Your task to perform on an android device: Add "alienware aurora" to the cart on newegg, then select checkout. Image 0: 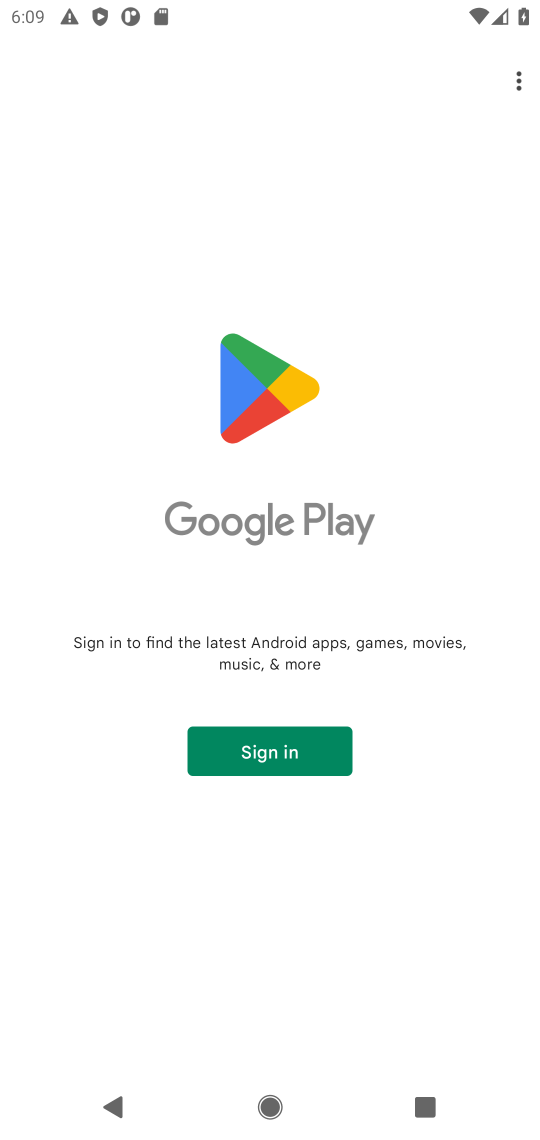
Step 0: press home button
Your task to perform on an android device: Add "alienware aurora" to the cart on newegg, then select checkout. Image 1: 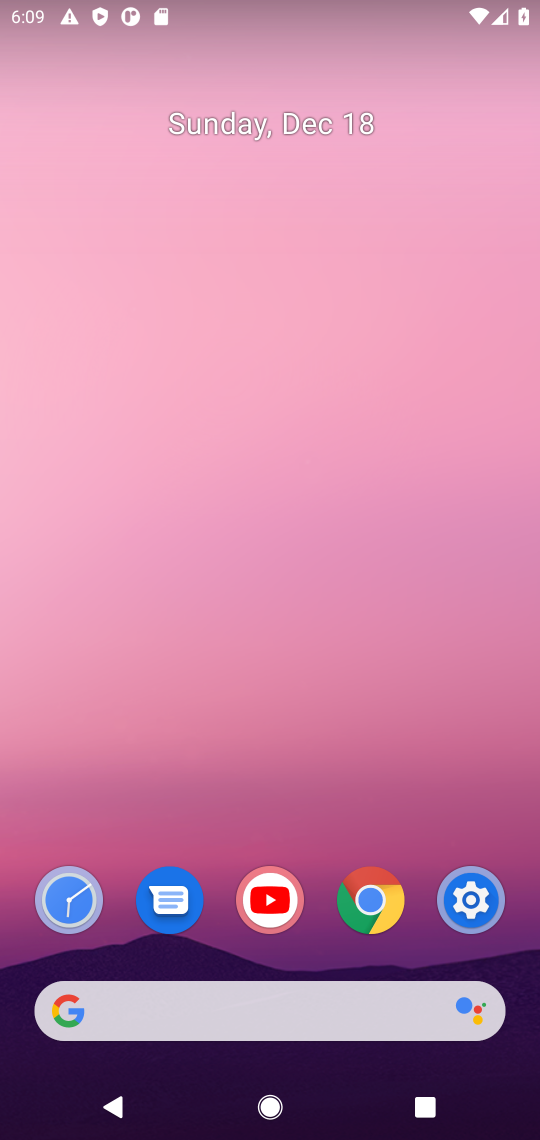
Step 1: click (361, 912)
Your task to perform on an android device: Add "alienware aurora" to the cart on newegg, then select checkout. Image 2: 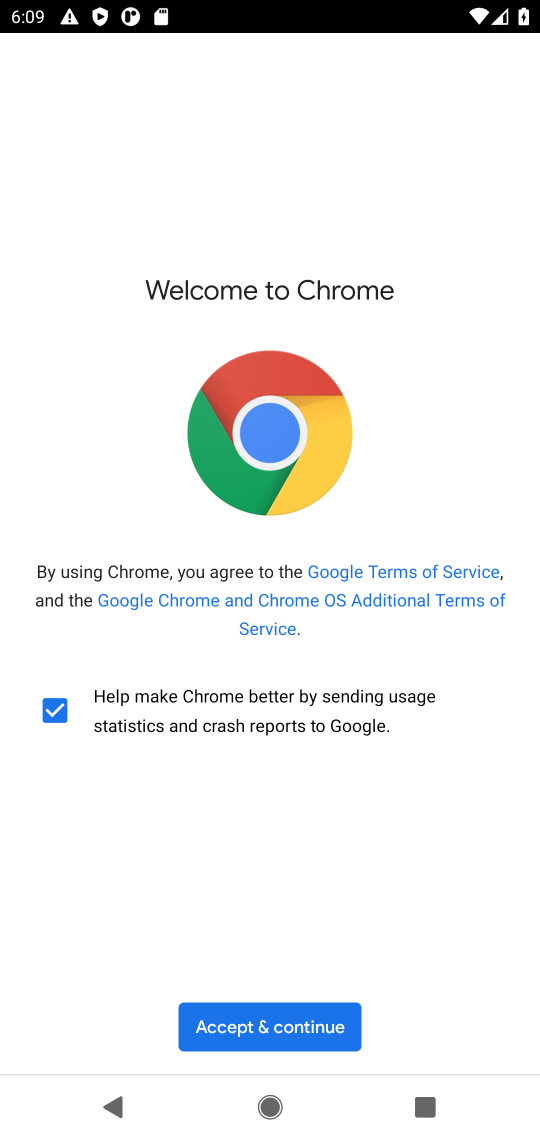
Step 2: click (240, 1014)
Your task to perform on an android device: Add "alienware aurora" to the cart on newegg, then select checkout. Image 3: 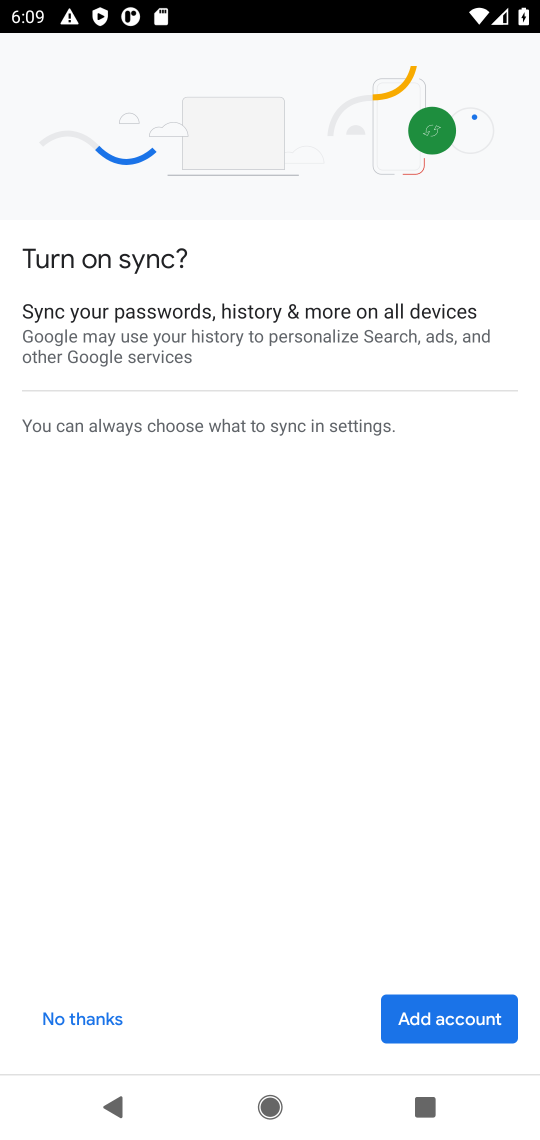
Step 3: click (32, 1009)
Your task to perform on an android device: Add "alienware aurora" to the cart on newegg, then select checkout. Image 4: 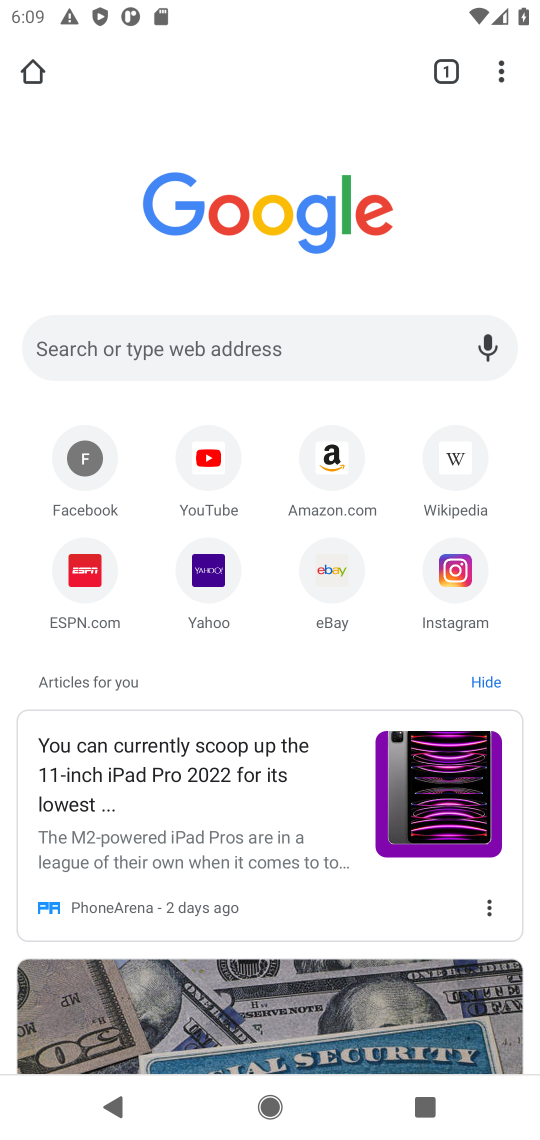
Step 4: click (329, 349)
Your task to perform on an android device: Add "alienware aurora" to the cart on newegg, then select checkout. Image 5: 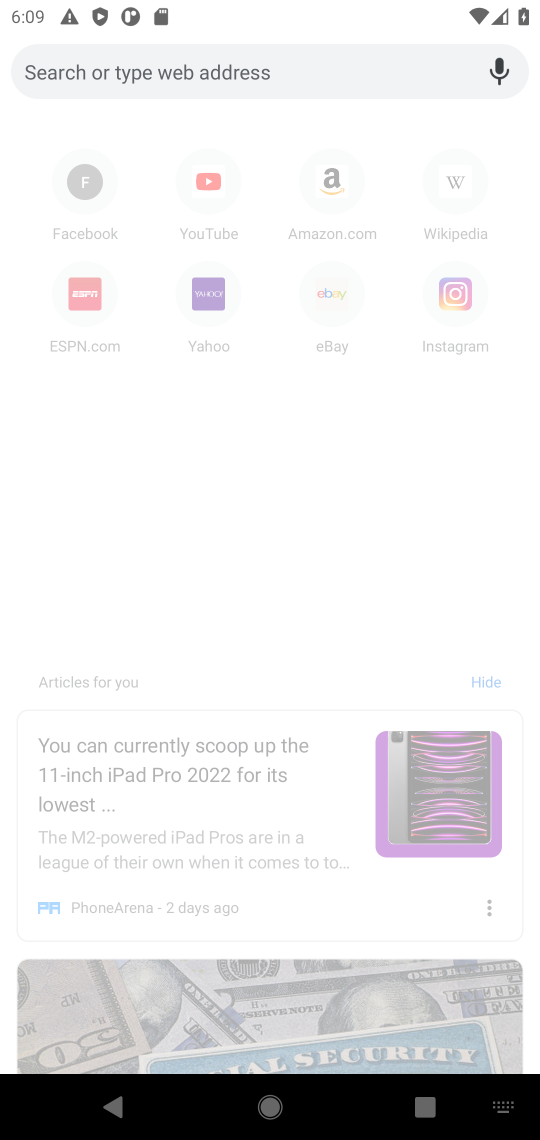
Step 5: type "newegg"
Your task to perform on an android device: Add "alienware aurora" to the cart on newegg, then select checkout. Image 6: 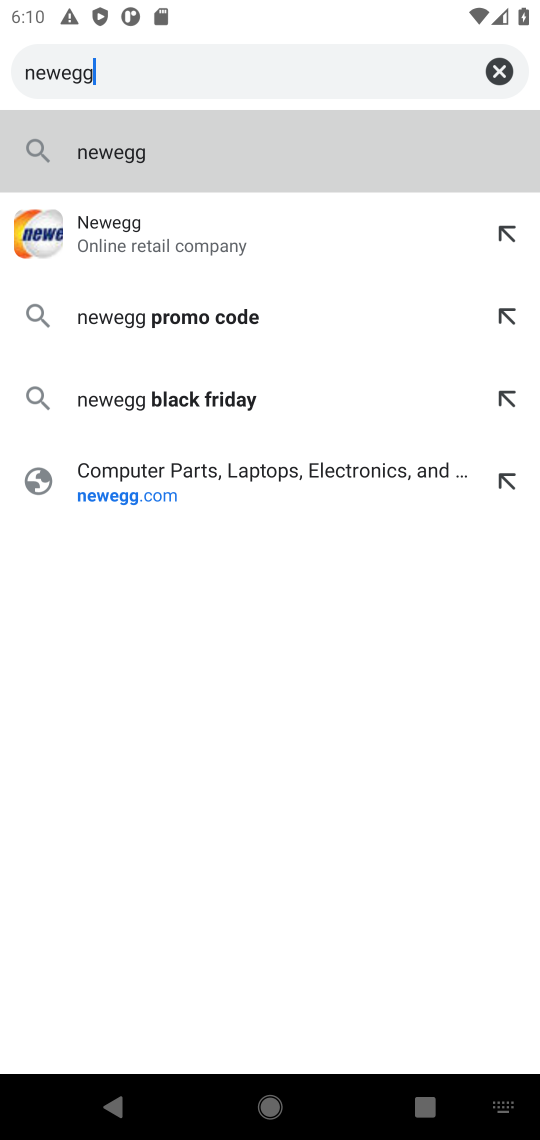
Step 6: click (106, 233)
Your task to perform on an android device: Add "alienware aurora" to the cart on newegg, then select checkout. Image 7: 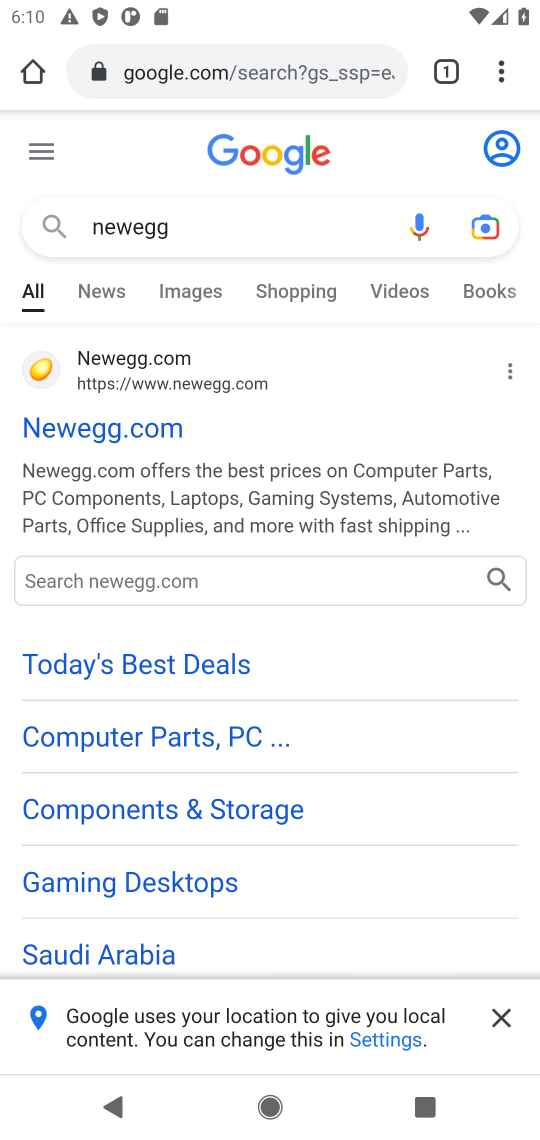
Step 7: click (96, 576)
Your task to perform on an android device: Add "alienware aurora" to the cart on newegg, then select checkout. Image 8: 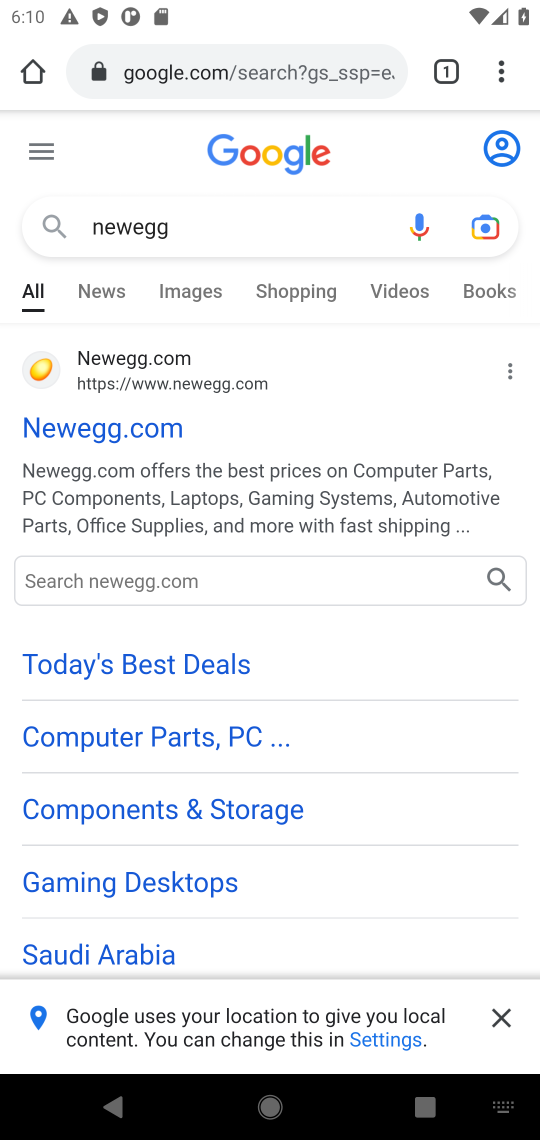
Step 8: type "alienware aurora"
Your task to perform on an android device: Add "alienware aurora" to the cart on newegg, then select checkout. Image 9: 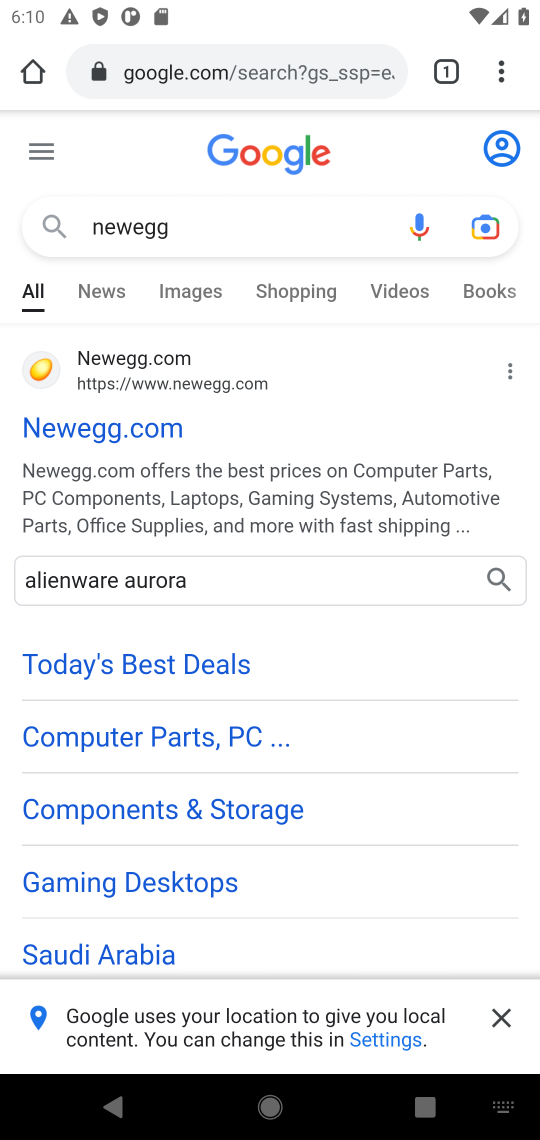
Step 9: click (481, 573)
Your task to perform on an android device: Add "alienware aurora" to the cart on newegg, then select checkout. Image 10: 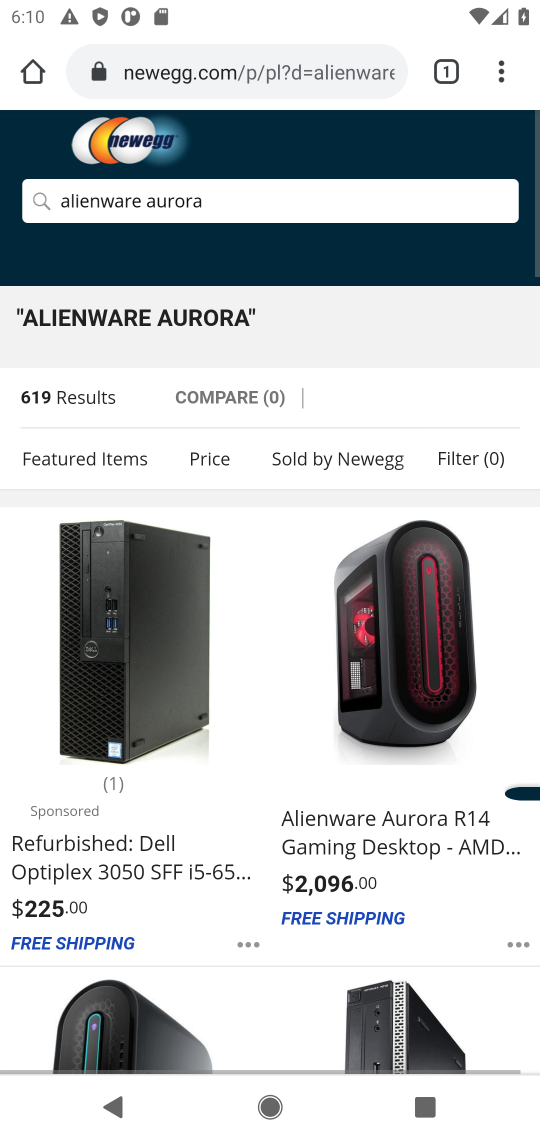
Step 10: click (501, 580)
Your task to perform on an android device: Add "alienware aurora" to the cart on newegg, then select checkout. Image 11: 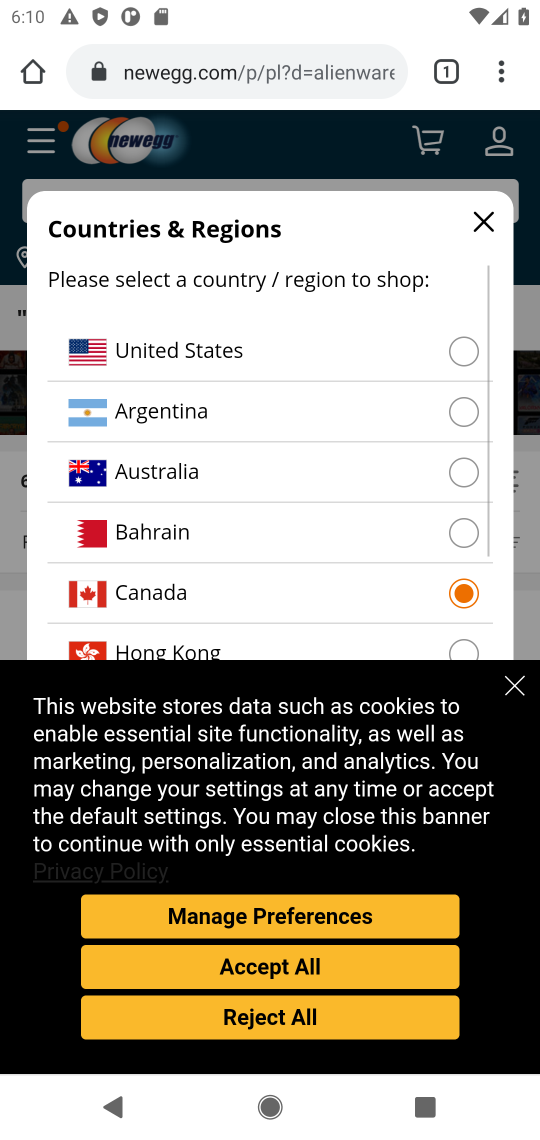
Step 11: click (294, 962)
Your task to perform on an android device: Add "alienware aurora" to the cart on newegg, then select checkout. Image 12: 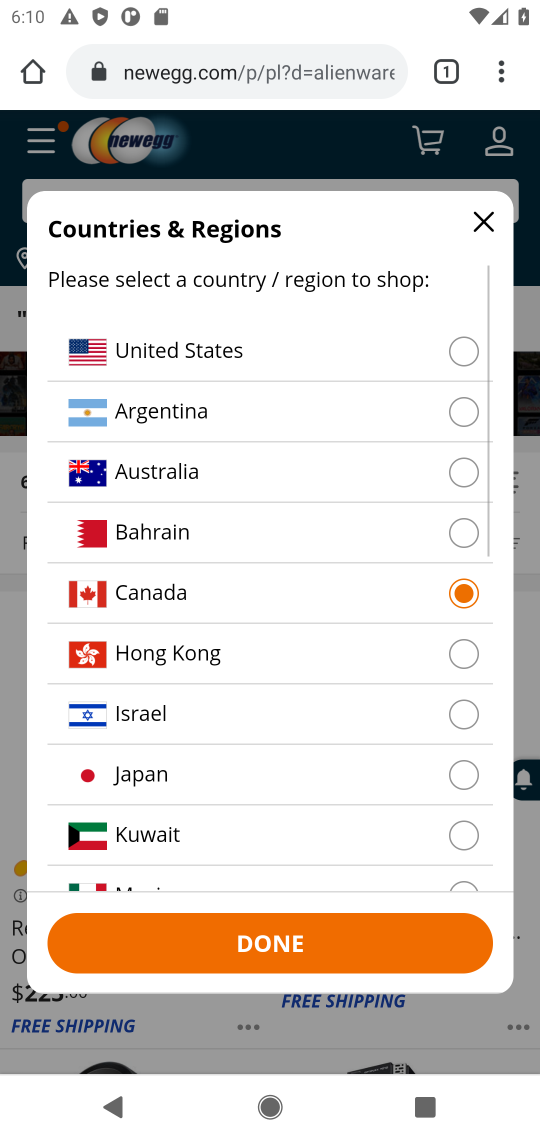
Step 12: click (216, 950)
Your task to perform on an android device: Add "alienware aurora" to the cart on newegg, then select checkout. Image 13: 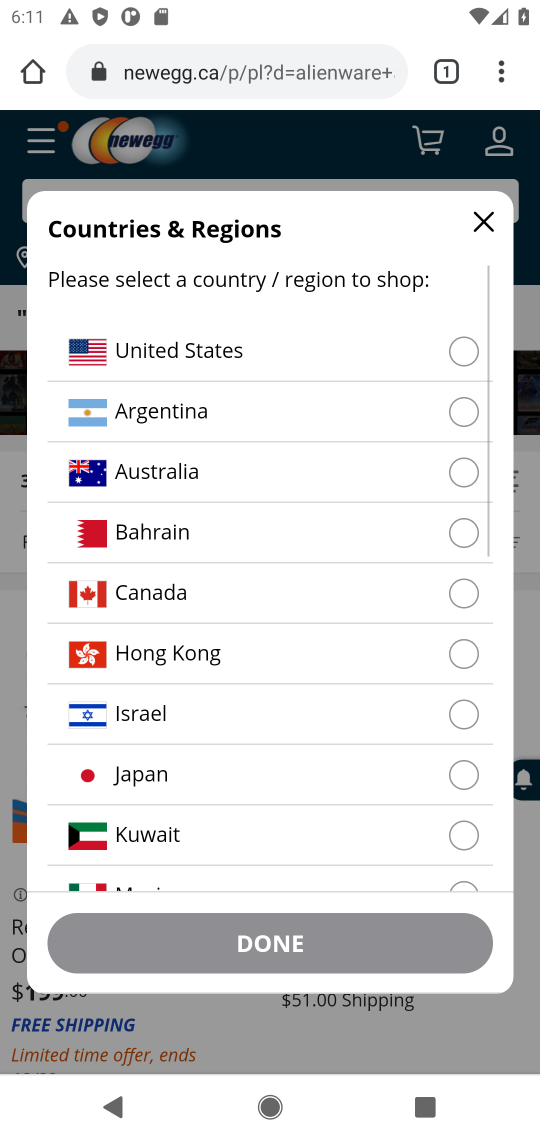
Step 13: click (459, 348)
Your task to perform on an android device: Add "alienware aurora" to the cart on newegg, then select checkout. Image 14: 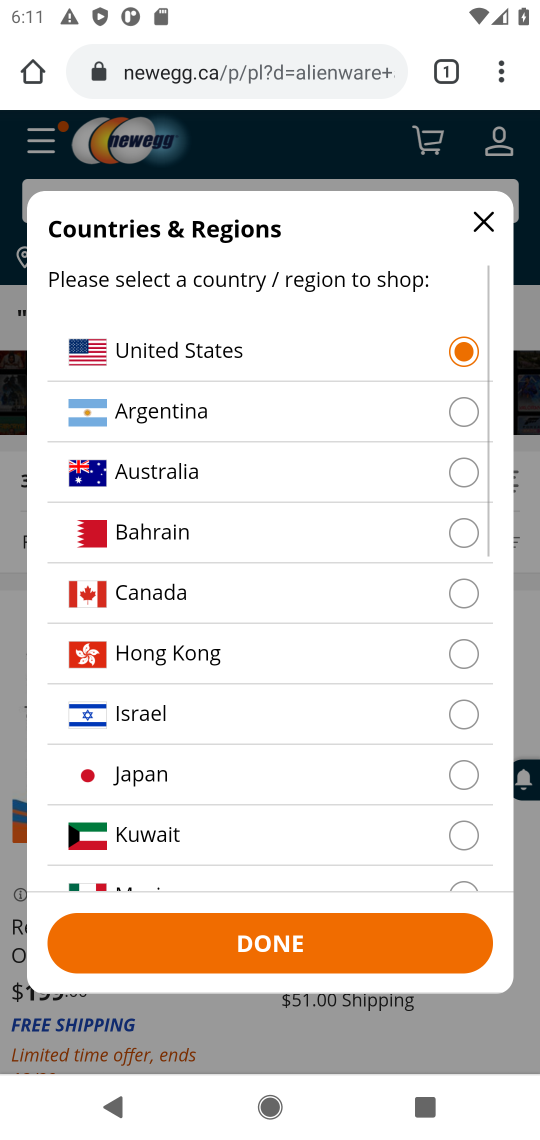
Step 14: click (299, 942)
Your task to perform on an android device: Add "alienware aurora" to the cart on newegg, then select checkout. Image 15: 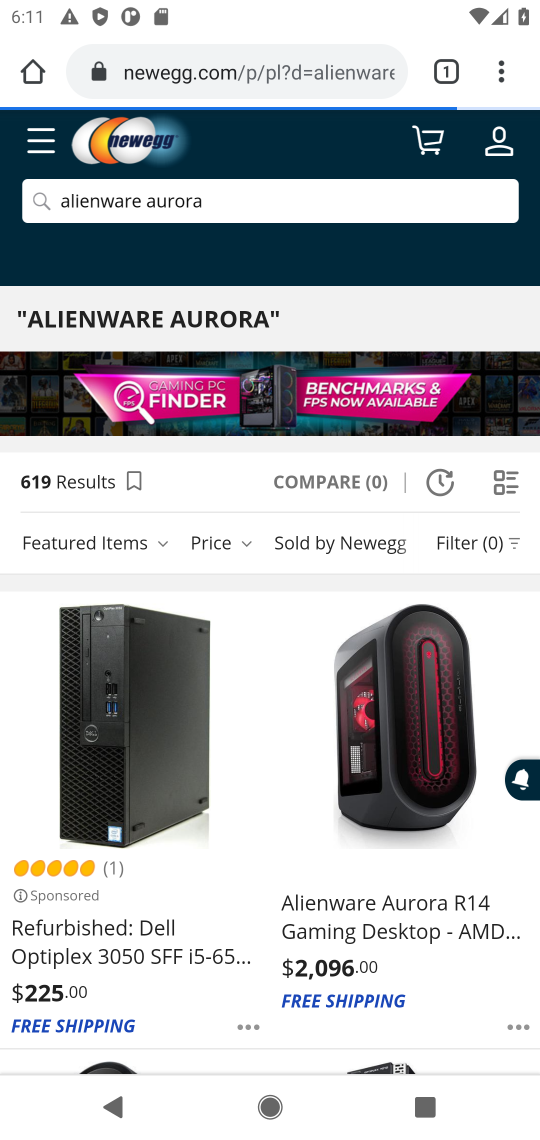
Step 15: click (396, 826)
Your task to perform on an android device: Add "alienware aurora" to the cart on newegg, then select checkout. Image 16: 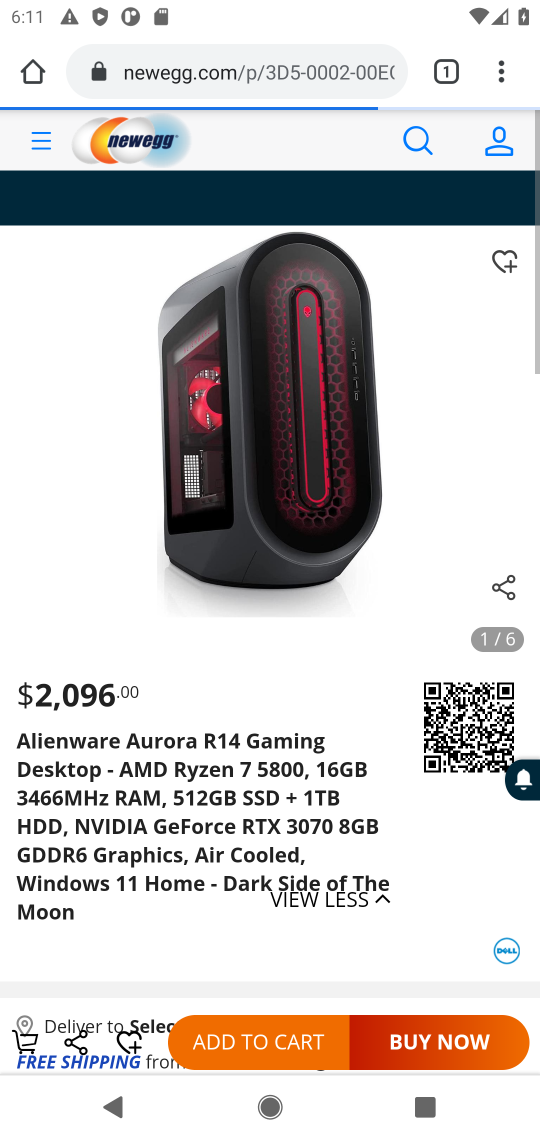
Step 16: click (362, 922)
Your task to perform on an android device: Add "alienware aurora" to the cart on newegg, then select checkout. Image 17: 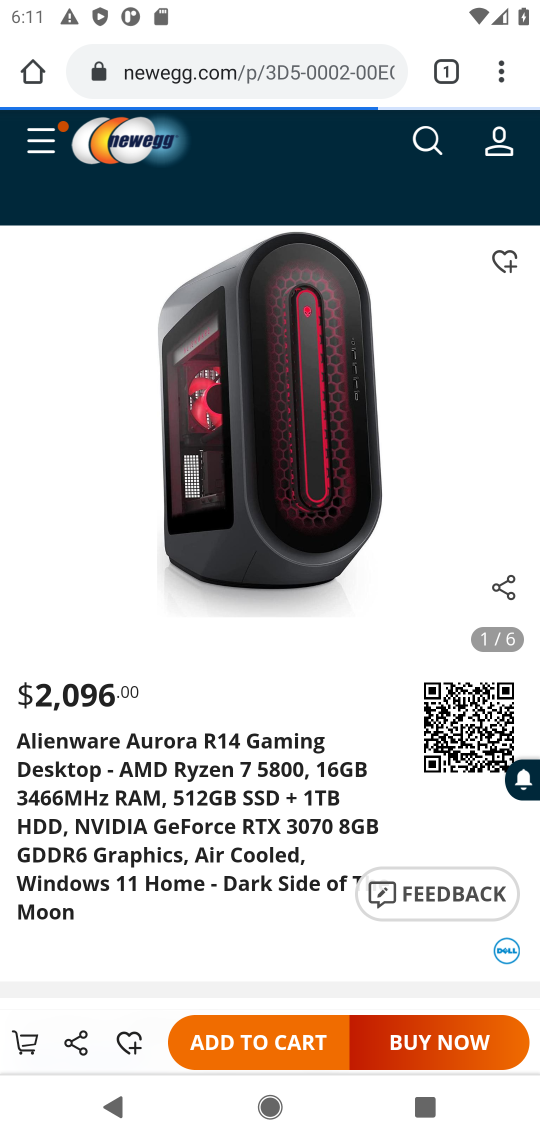
Step 17: click (237, 1042)
Your task to perform on an android device: Add "alienware aurora" to the cart on newegg, then select checkout. Image 18: 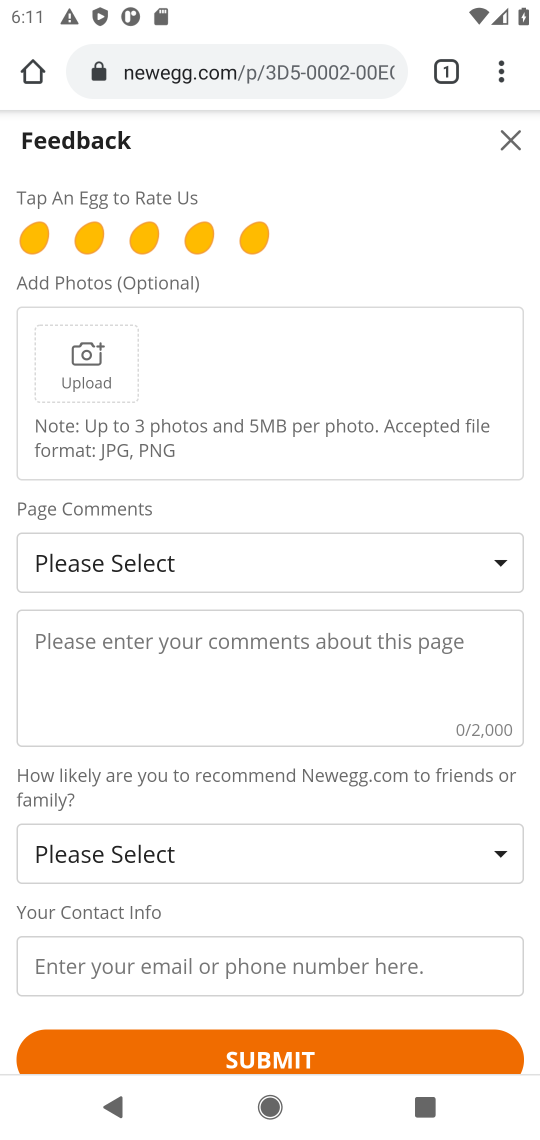
Step 18: click (523, 119)
Your task to perform on an android device: Add "alienware aurora" to the cart on newegg, then select checkout. Image 19: 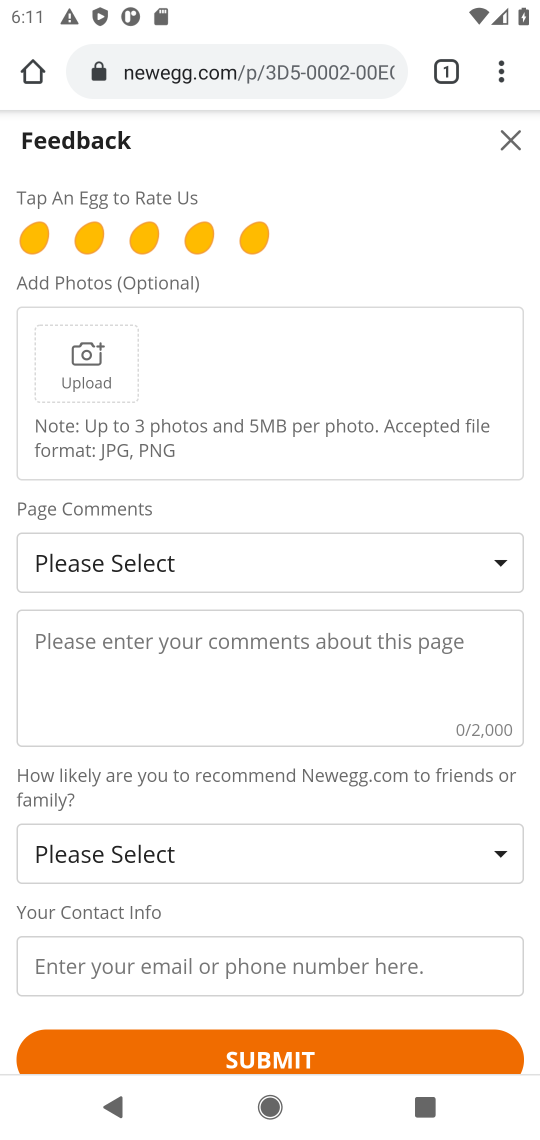
Step 19: click (512, 144)
Your task to perform on an android device: Add "alienware aurora" to the cart on newegg, then select checkout. Image 20: 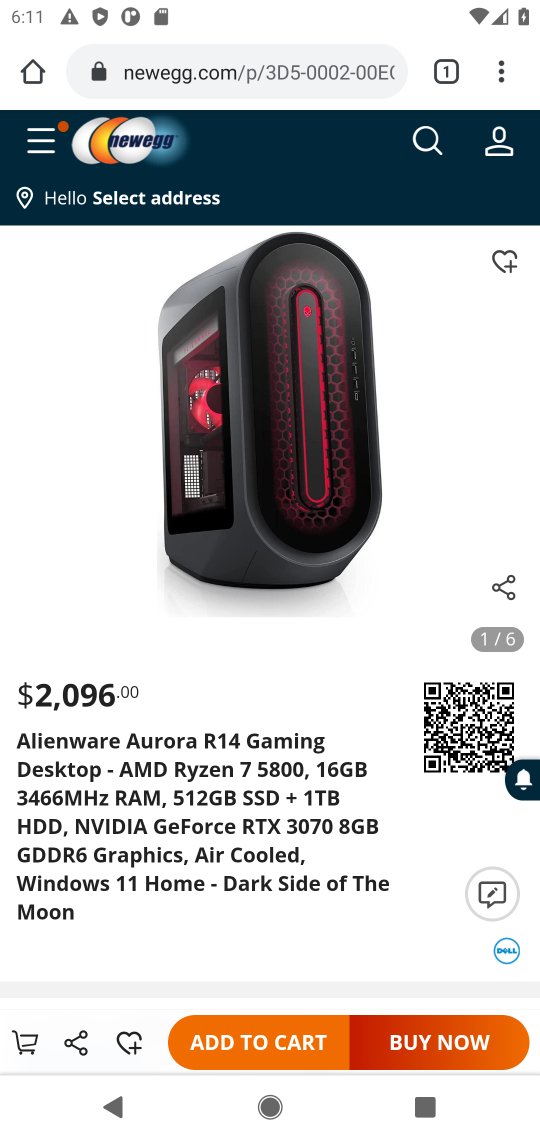
Step 20: click (264, 1035)
Your task to perform on an android device: Add "alienware aurora" to the cart on newegg, then select checkout. Image 21: 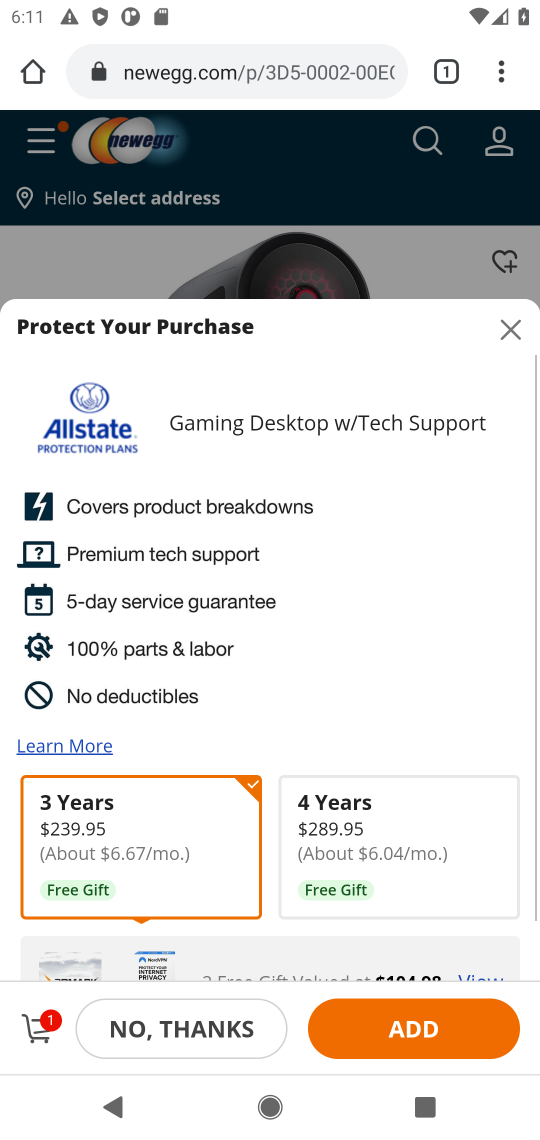
Step 21: click (36, 1028)
Your task to perform on an android device: Add "alienware aurora" to the cart on newegg, then select checkout. Image 22: 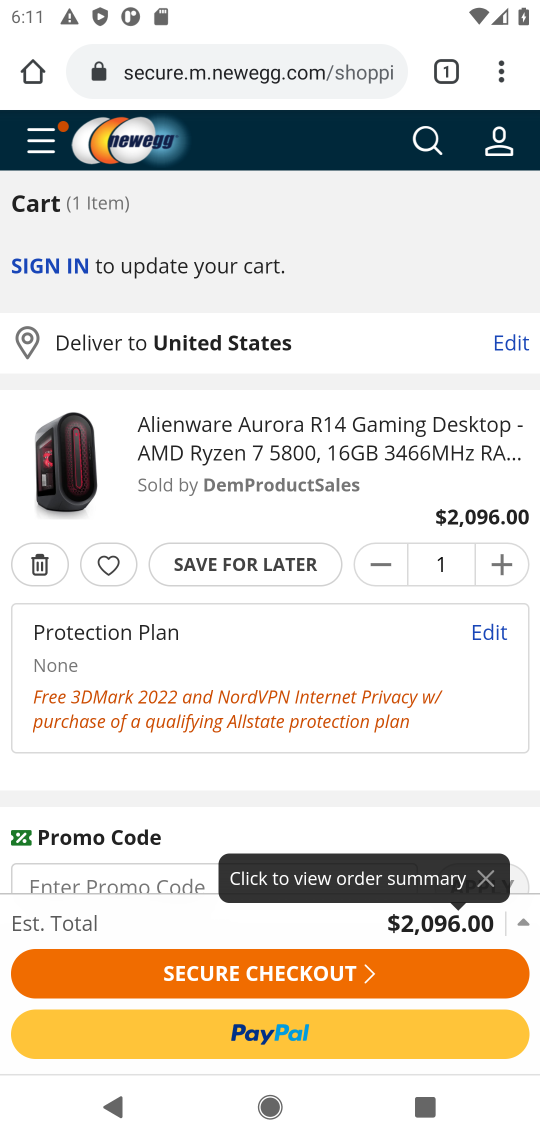
Step 22: click (253, 1019)
Your task to perform on an android device: Add "alienware aurora" to the cart on newegg, then select checkout. Image 23: 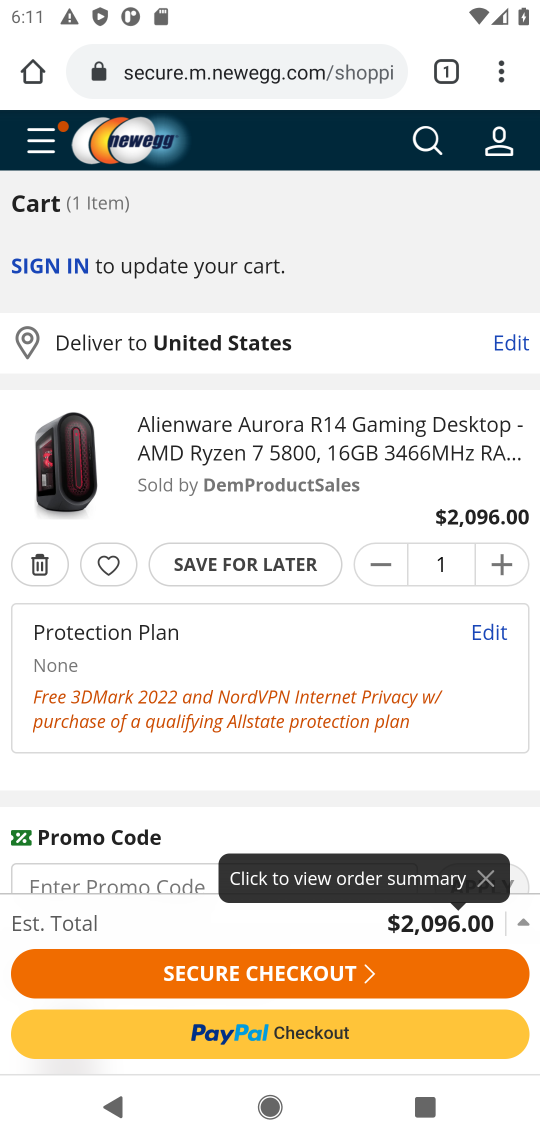
Step 23: task complete